Your task to perform on an android device: Open sound settings Image 0: 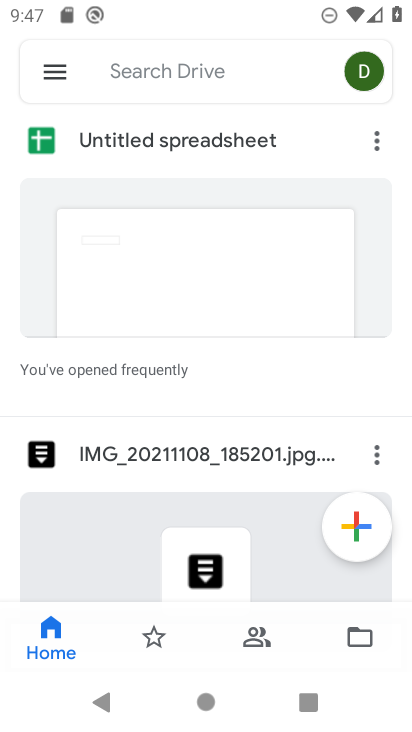
Step 0: press home button
Your task to perform on an android device: Open sound settings Image 1: 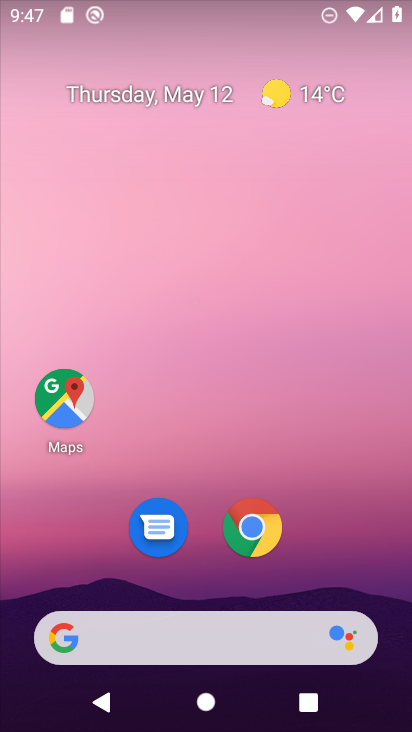
Step 1: drag from (333, 554) to (371, 89)
Your task to perform on an android device: Open sound settings Image 2: 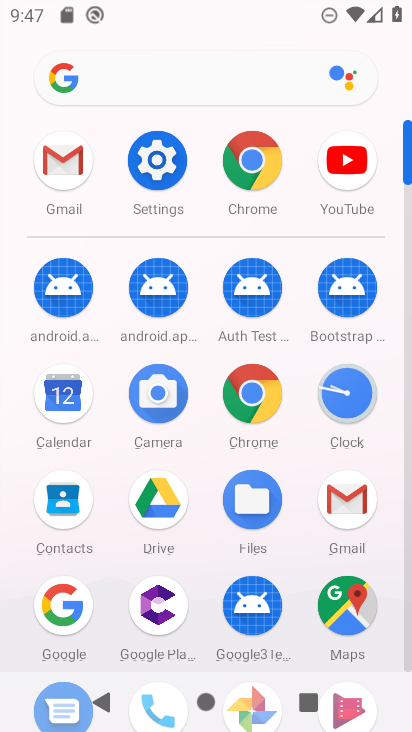
Step 2: click (149, 193)
Your task to perform on an android device: Open sound settings Image 3: 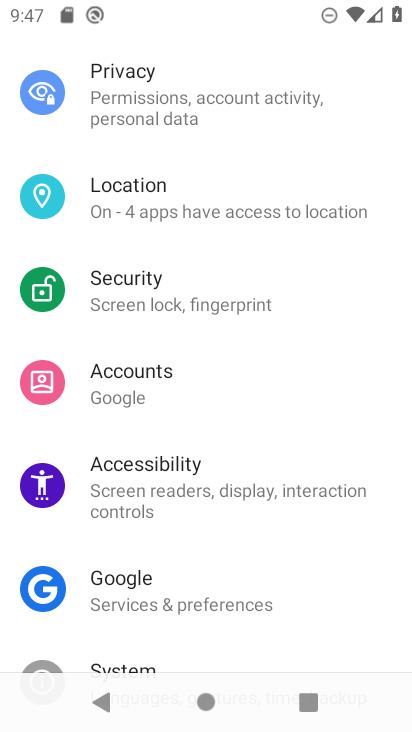
Step 3: drag from (246, 167) to (302, 370)
Your task to perform on an android device: Open sound settings Image 4: 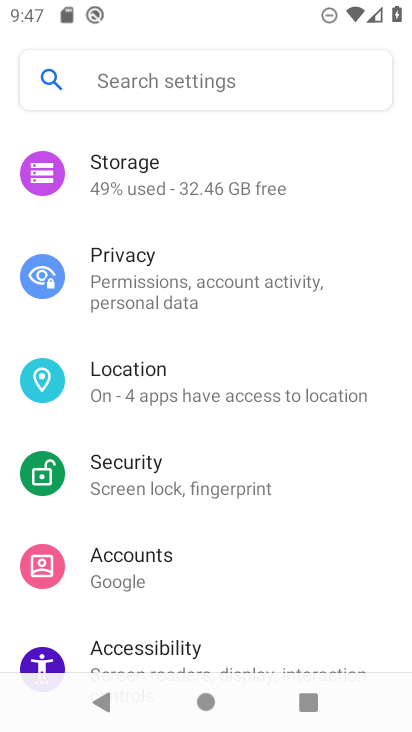
Step 4: drag from (267, 234) to (222, 492)
Your task to perform on an android device: Open sound settings Image 5: 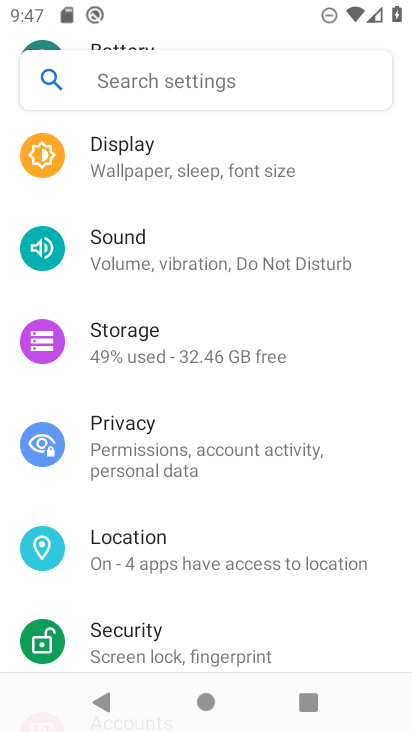
Step 5: drag from (241, 250) to (227, 478)
Your task to perform on an android device: Open sound settings Image 6: 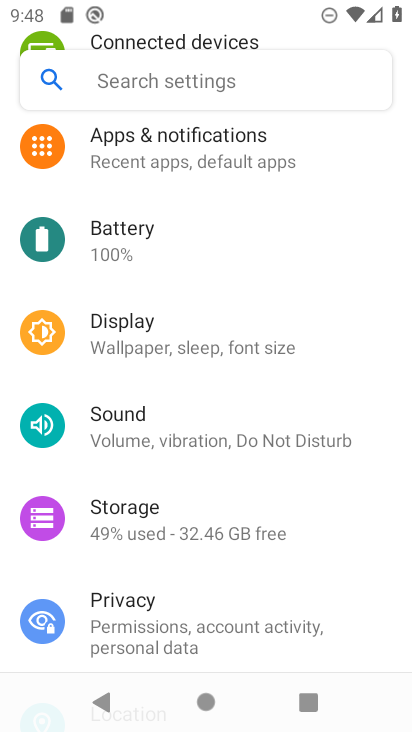
Step 6: drag from (260, 251) to (230, 557)
Your task to perform on an android device: Open sound settings Image 7: 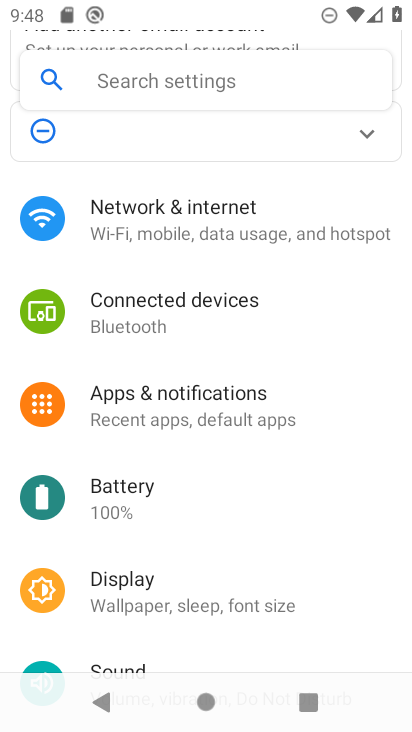
Step 7: drag from (217, 590) to (256, 354)
Your task to perform on an android device: Open sound settings Image 8: 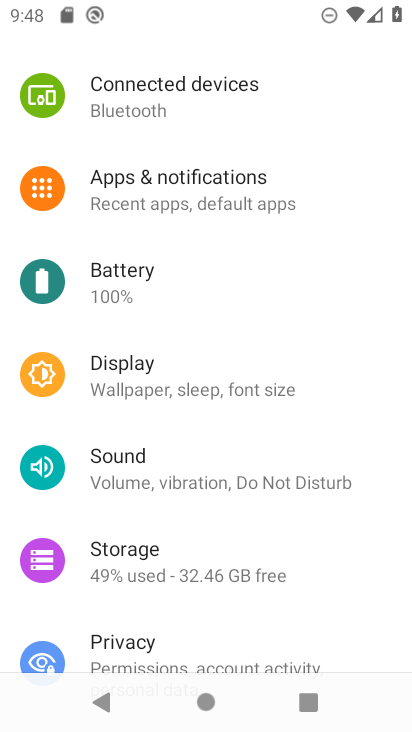
Step 8: click (221, 481)
Your task to perform on an android device: Open sound settings Image 9: 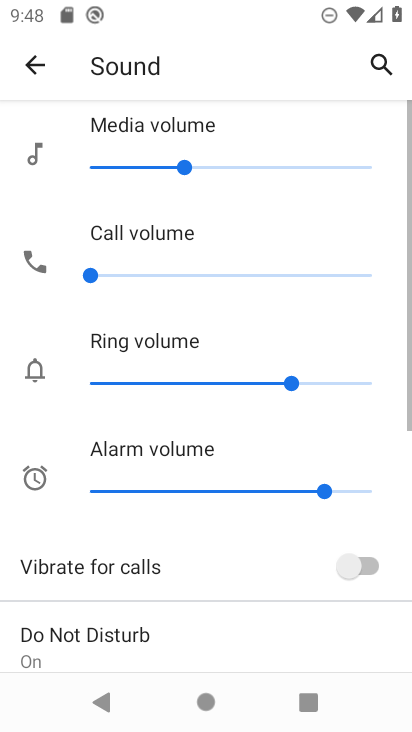
Step 9: task complete